Your task to perform on an android device: Do I have any events this weekend? Image 0: 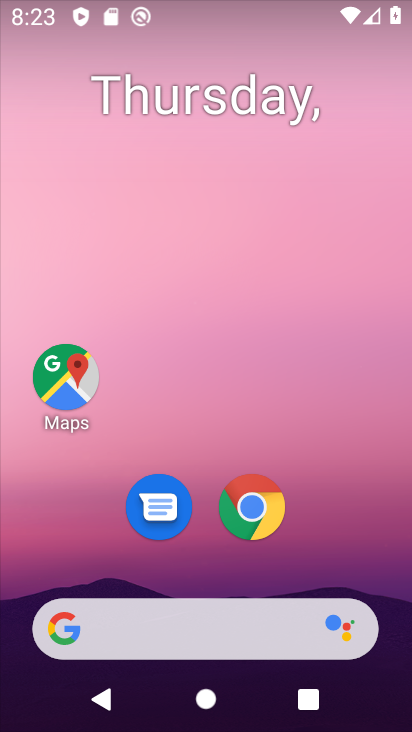
Step 0: drag from (185, 566) to (230, 14)
Your task to perform on an android device: Do I have any events this weekend? Image 1: 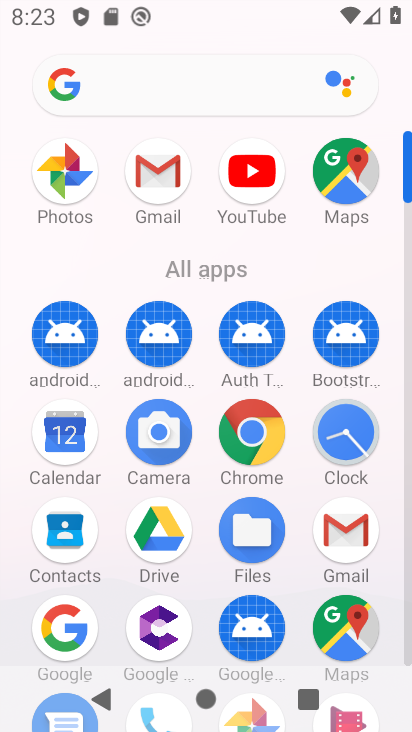
Step 1: click (56, 453)
Your task to perform on an android device: Do I have any events this weekend? Image 2: 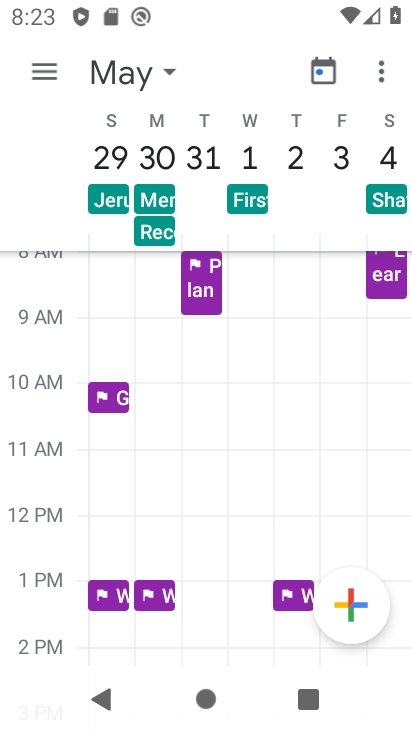
Step 2: click (38, 73)
Your task to perform on an android device: Do I have any events this weekend? Image 3: 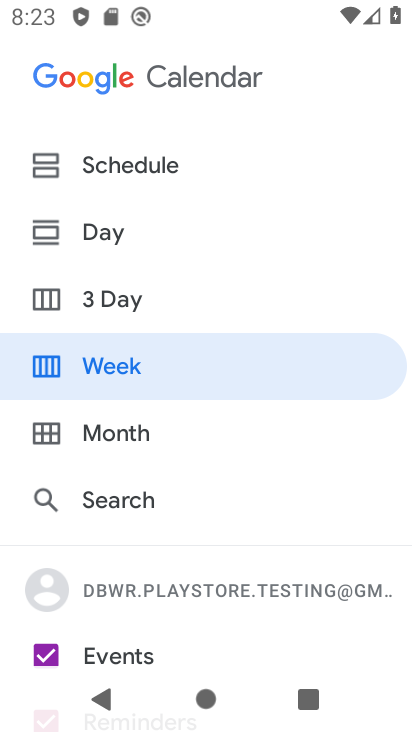
Step 3: drag from (118, 521) to (164, 233)
Your task to perform on an android device: Do I have any events this weekend? Image 4: 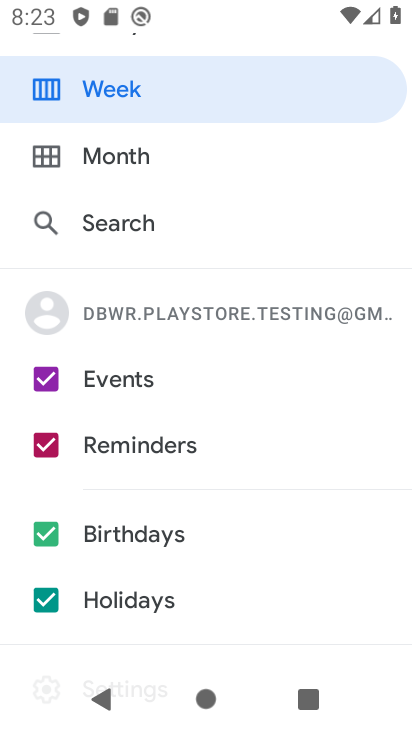
Step 4: click (115, 458)
Your task to perform on an android device: Do I have any events this weekend? Image 5: 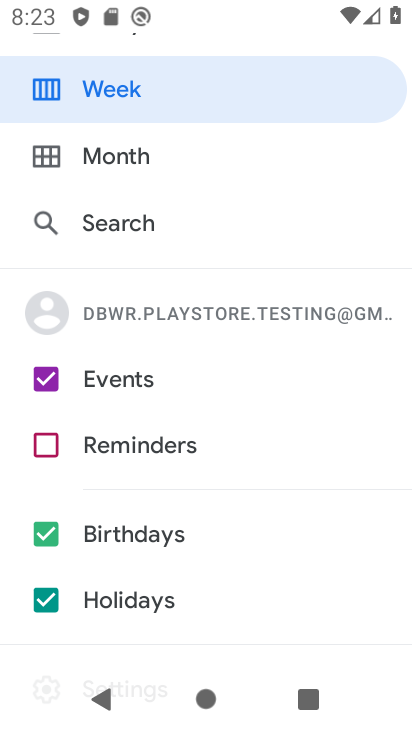
Step 5: click (116, 542)
Your task to perform on an android device: Do I have any events this weekend? Image 6: 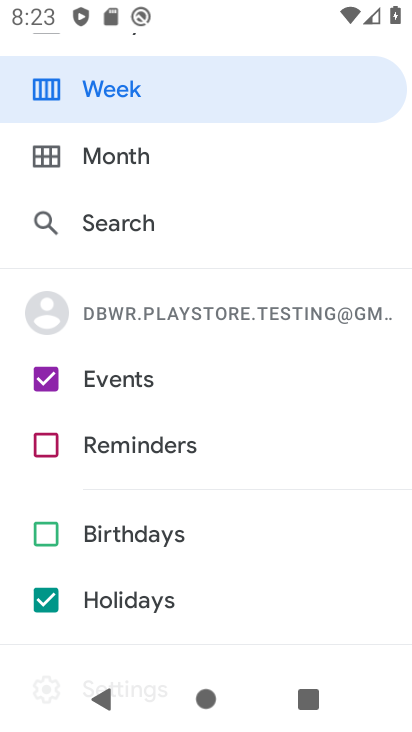
Step 6: click (93, 593)
Your task to perform on an android device: Do I have any events this weekend? Image 7: 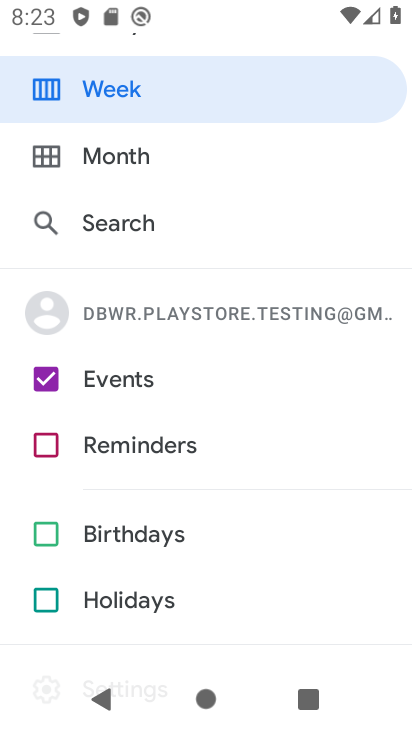
Step 7: click (98, 590)
Your task to perform on an android device: Do I have any events this weekend? Image 8: 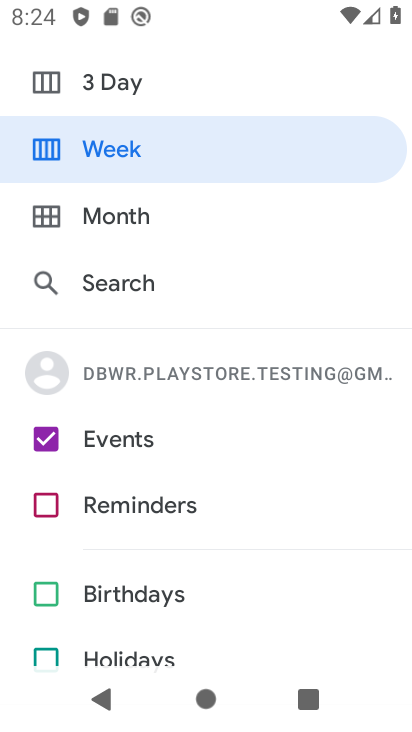
Step 8: click (129, 154)
Your task to perform on an android device: Do I have any events this weekend? Image 9: 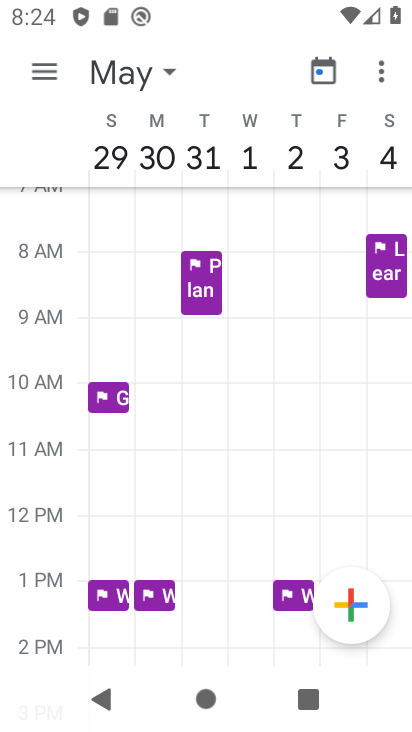
Step 9: task complete